Your task to perform on an android device: Open accessibility settings Image 0: 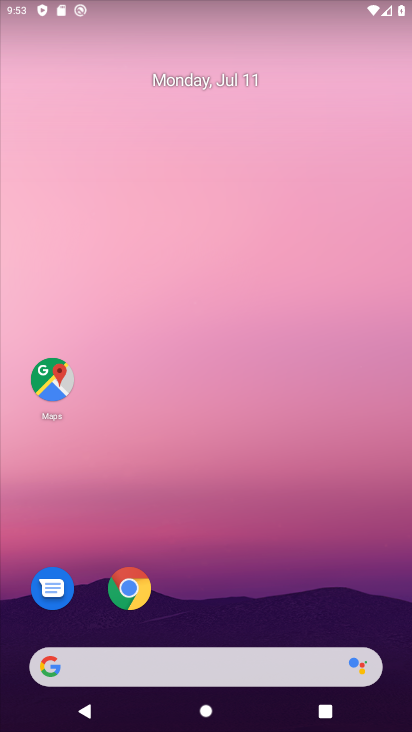
Step 0: drag from (228, 561) to (274, 62)
Your task to perform on an android device: Open accessibility settings Image 1: 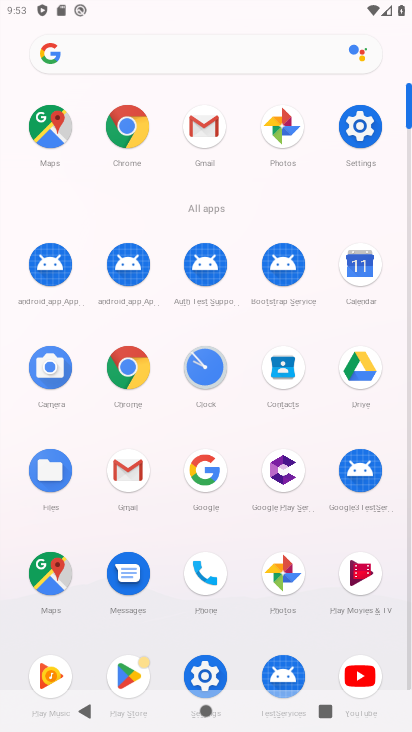
Step 1: click (207, 673)
Your task to perform on an android device: Open accessibility settings Image 2: 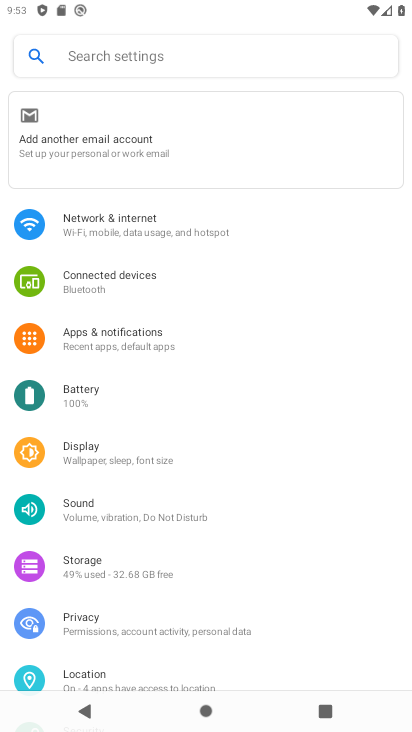
Step 2: drag from (120, 632) to (185, 244)
Your task to perform on an android device: Open accessibility settings Image 3: 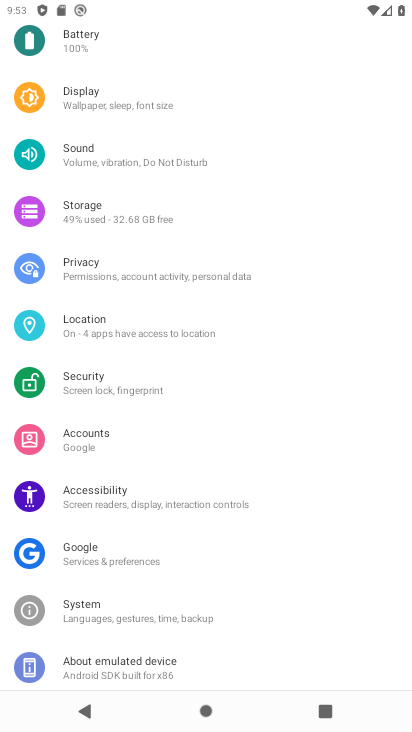
Step 3: click (117, 501)
Your task to perform on an android device: Open accessibility settings Image 4: 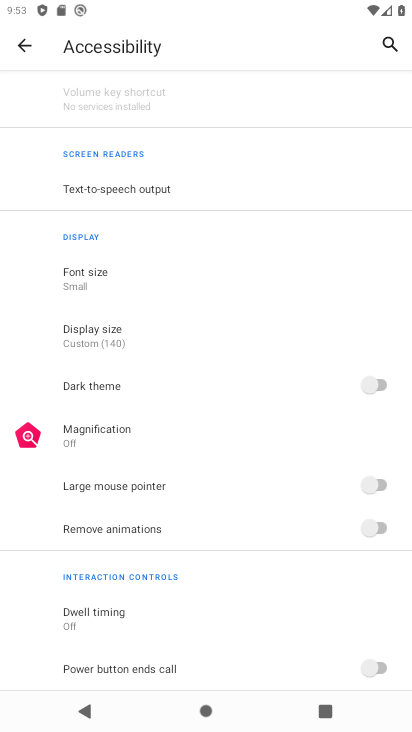
Step 4: task complete